Your task to perform on an android device: change alarm snooze length Image 0: 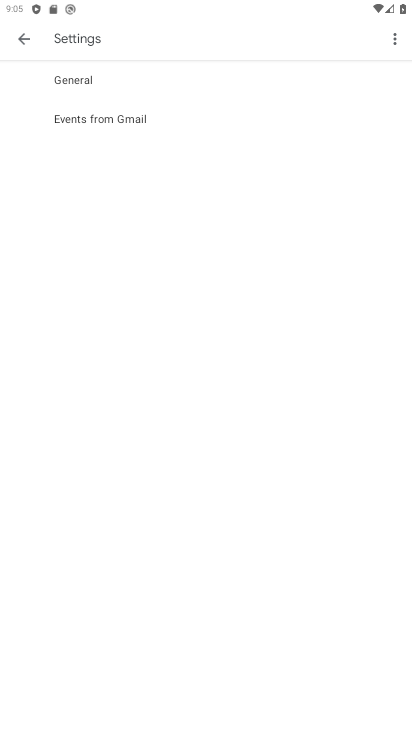
Step 0: press home button
Your task to perform on an android device: change alarm snooze length Image 1: 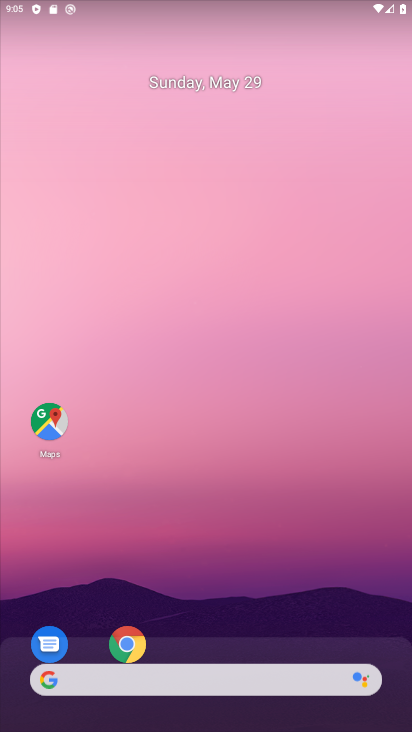
Step 1: drag from (217, 674) to (336, 131)
Your task to perform on an android device: change alarm snooze length Image 2: 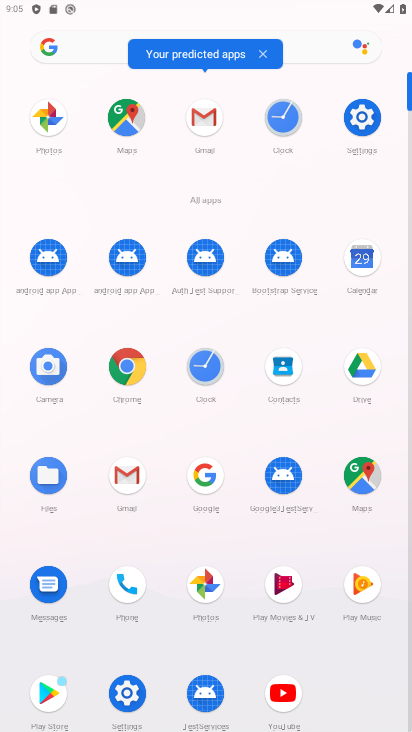
Step 2: click (198, 363)
Your task to perform on an android device: change alarm snooze length Image 3: 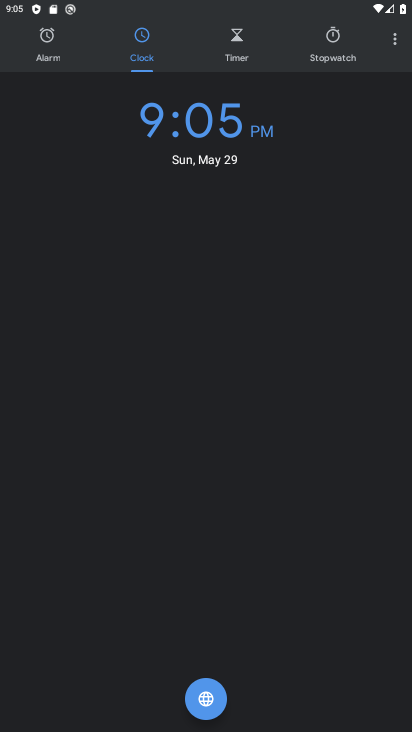
Step 3: click (393, 51)
Your task to perform on an android device: change alarm snooze length Image 4: 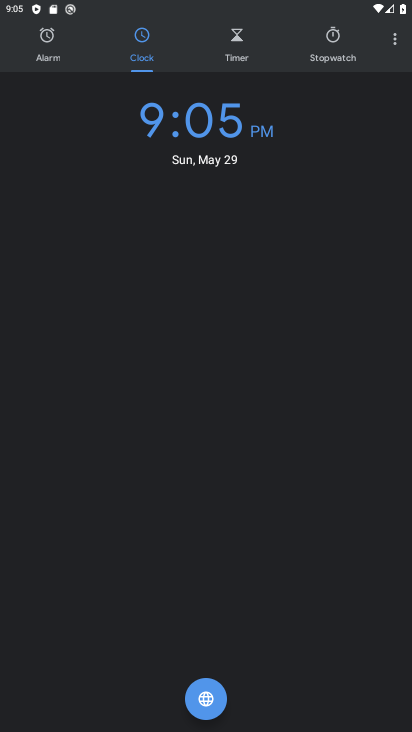
Step 4: click (400, 39)
Your task to perform on an android device: change alarm snooze length Image 5: 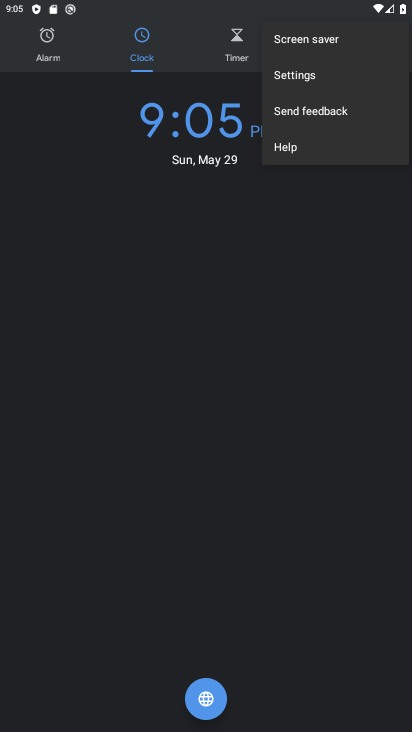
Step 5: click (364, 76)
Your task to perform on an android device: change alarm snooze length Image 6: 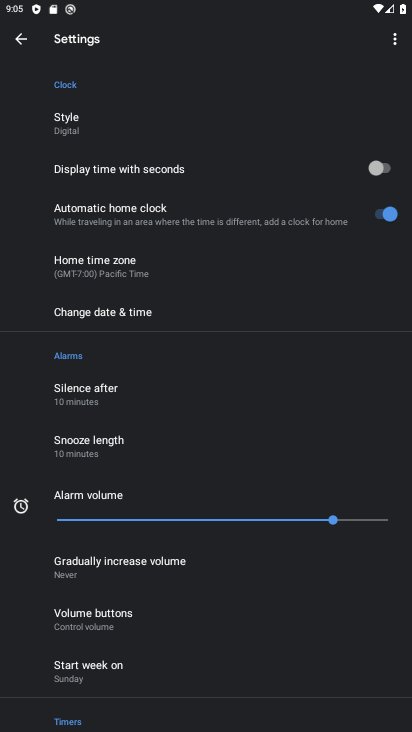
Step 6: drag from (194, 684) to (301, 623)
Your task to perform on an android device: change alarm snooze length Image 7: 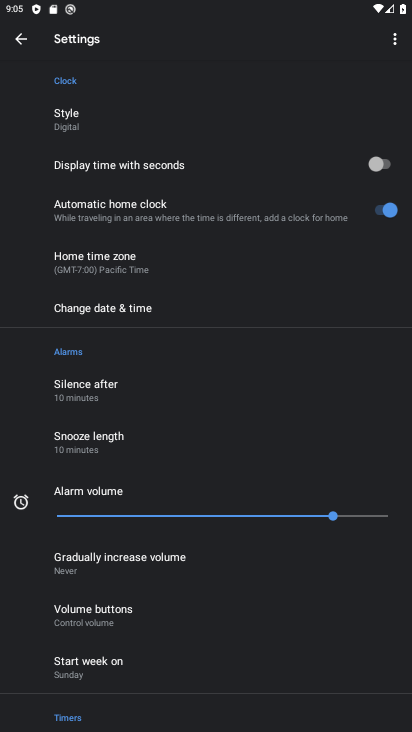
Step 7: click (194, 439)
Your task to perform on an android device: change alarm snooze length Image 8: 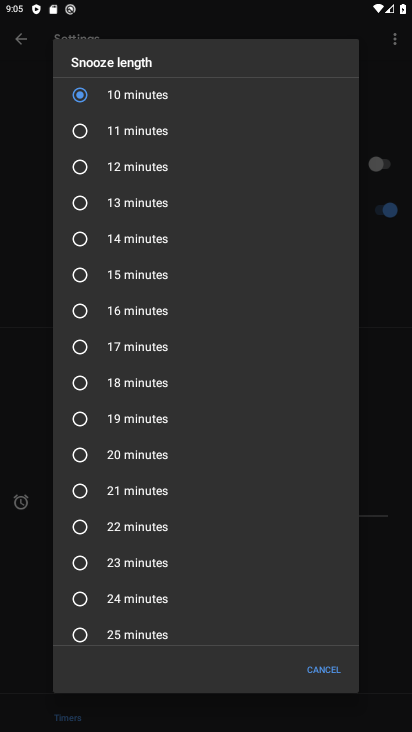
Step 8: click (118, 458)
Your task to perform on an android device: change alarm snooze length Image 9: 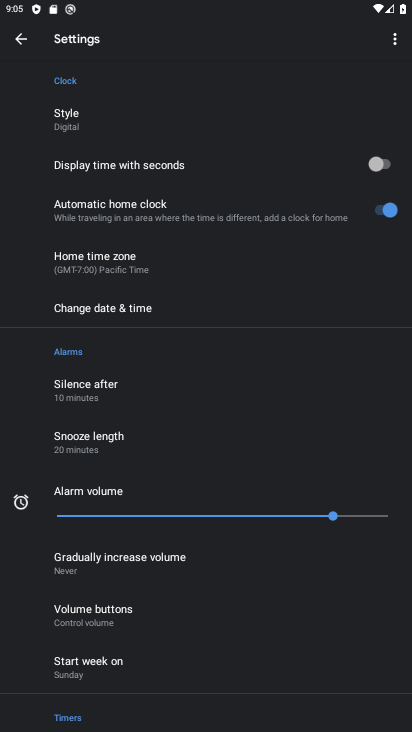
Step 9: task complete